Your task to perform on an android device: check google app version Image 0: 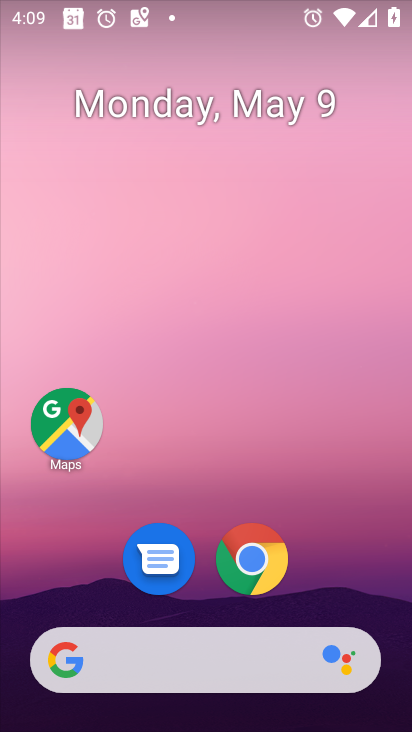
Step 0: drag from (203, 728) to (201, 60)
Your task to perform on an android device: check google app version Image 1: 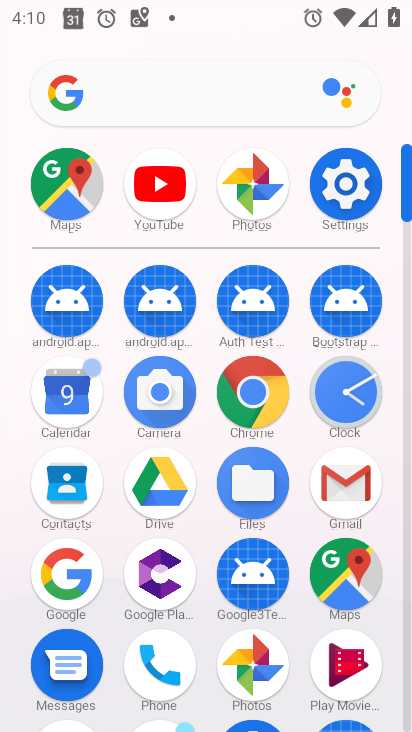
Step 1: drag from (205, 606) to (205, 260)
Your task to perform on an android device: check google app version Image 2: 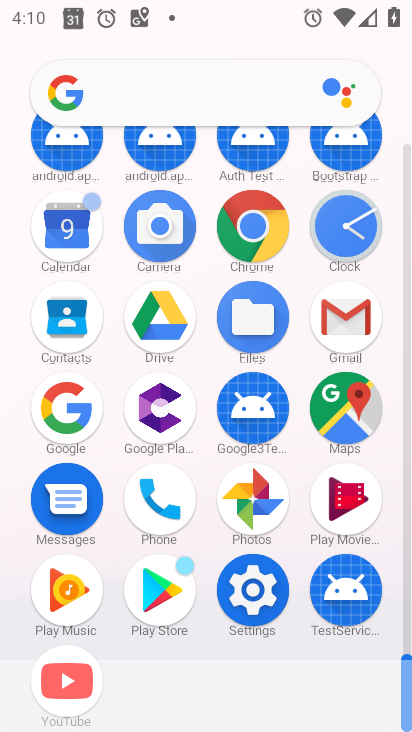
Step 2: click (64, 403)
Your task to perform on an android device: check google app version Image 3: 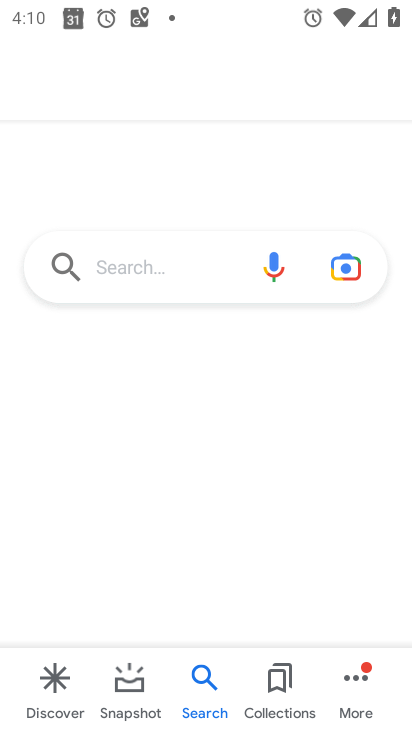
Step 3: click (362, 670)
Your task to perform on an android device: check google app version Image 4: 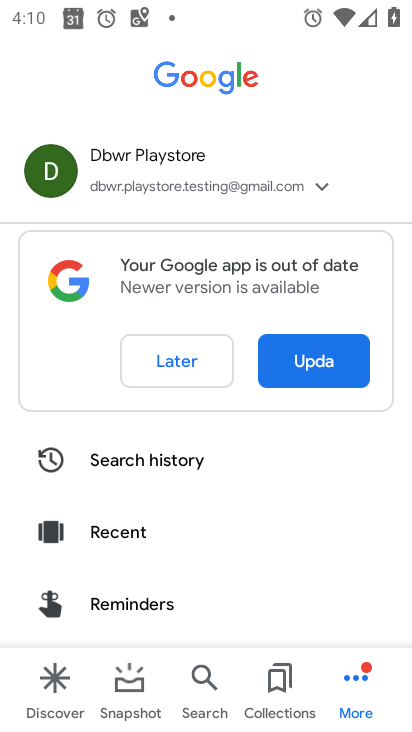
Step 4: drag from (199, 618) to (227, 251)
Your task to perform on an android device: check google app version Image 5: 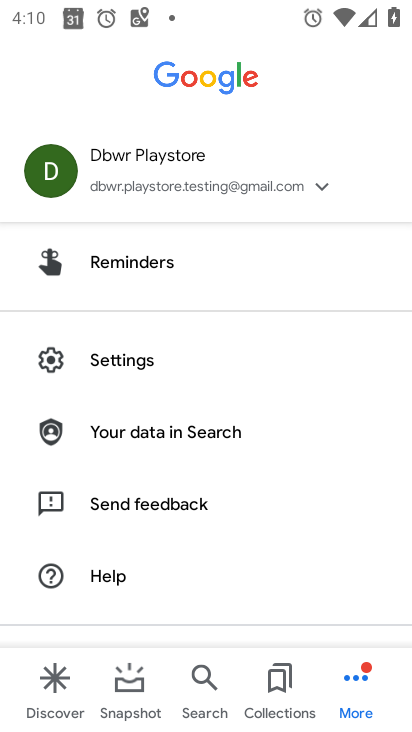
Step 5: click (111, 353)
Your task to perform on an android device: check google app version Image 6: 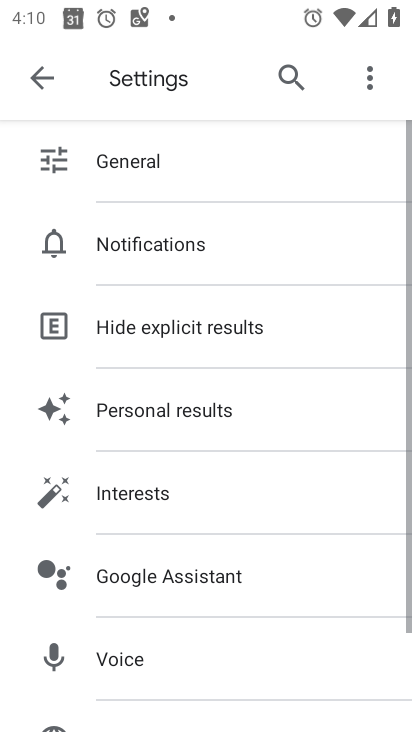
Step 6: drag from (181, 656) to (180, 362)
Your task to perform on an android device: check google app version Image 7: 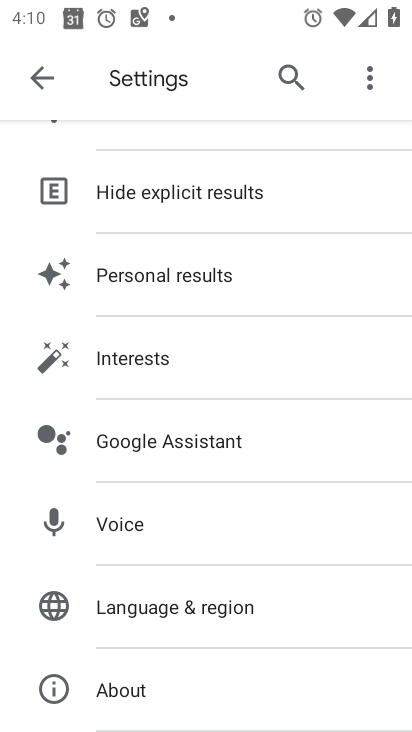
Step 7: click (139, 691)
Your task to perform on an android device: check google app version Image 8: 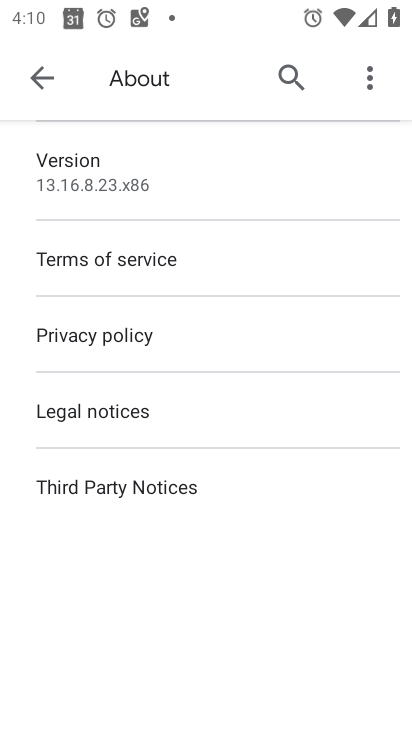
Step 8: task complete